Your task to perform on an android device: turn on notifications settings in the gmail app Image 0: 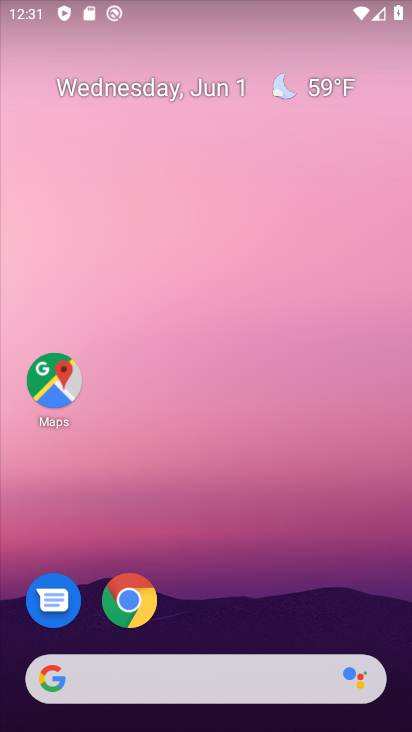
Step 0: drag from (195, 613) to (232, 85)
Your task to perform on an android device: turn on notifications settings in the gmail app Image 1: 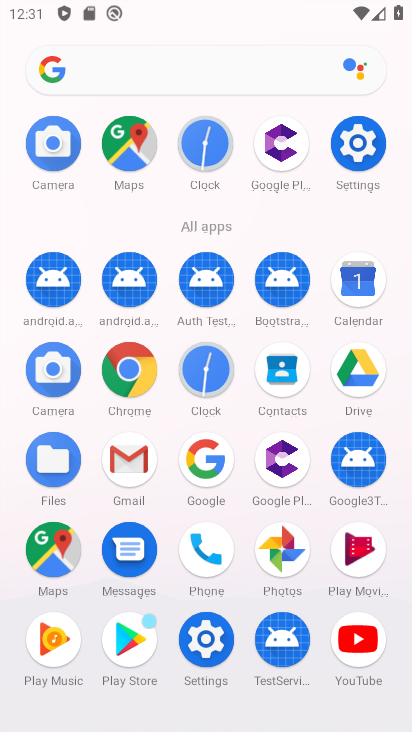
Step 1: click (128, 450)
Your task to perform on an android device: turn on notifications settings in the gmail app Image 2: 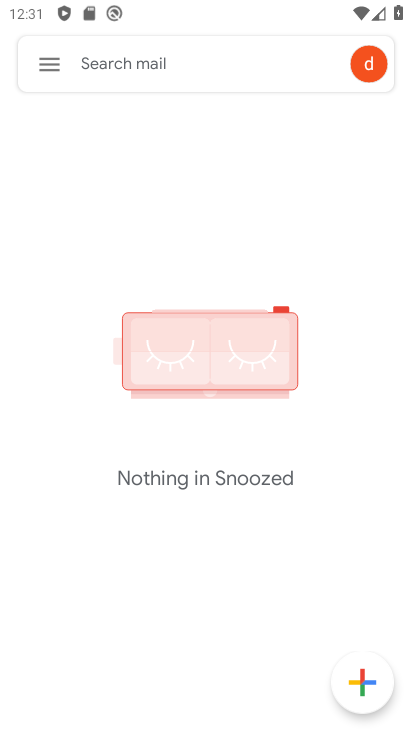
Step 2: click (55, 62)
Your task to perform on an android device: turn on notifications settings in the gmail app Image 3: 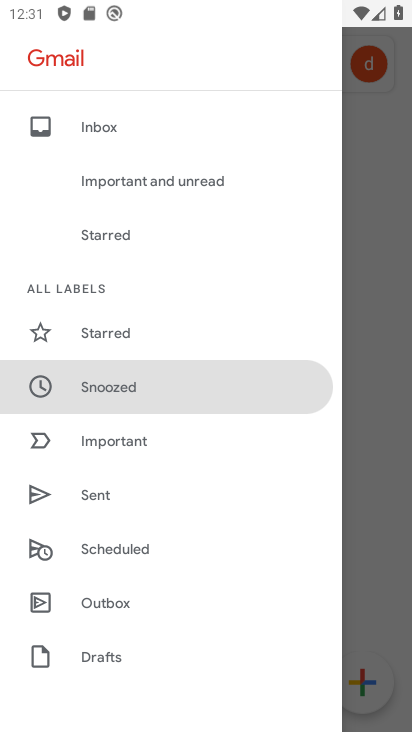
Step 3: drag from (109, 675) to (243, 170)
Your task to perform on an android device: turn on notifications settings in the gmail app Image 4: 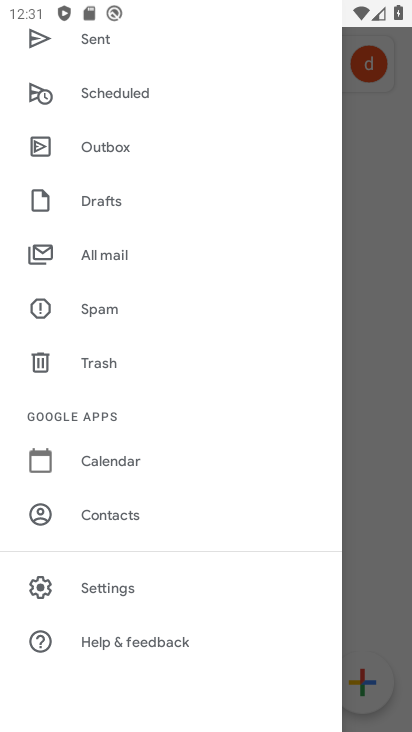
Step 4: click (138, 578)
Your task to perform on an android device: turn on notifications settings in the gmail app Image 5: 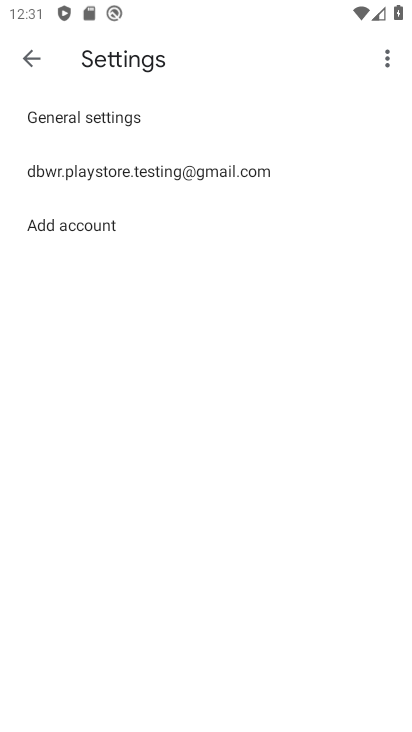
Step 5: click (277, 165)
Your task to perform on an android device: turn on notifications settings in the gmail app Image 6: 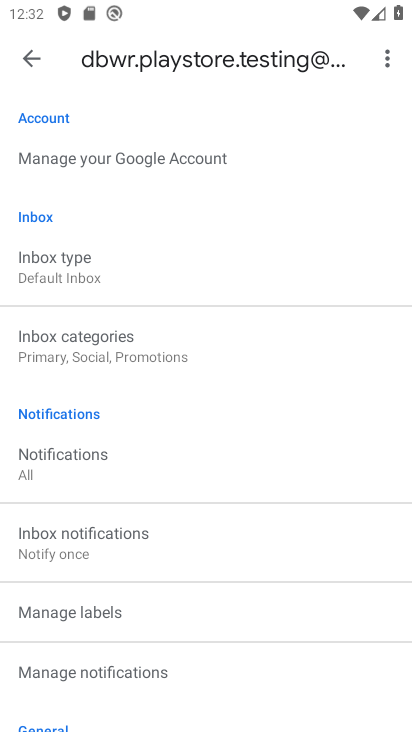
Step 6: click (117, 479)
Your task to perform on an android device: turn on notifications settings in the gmail app Image 7: 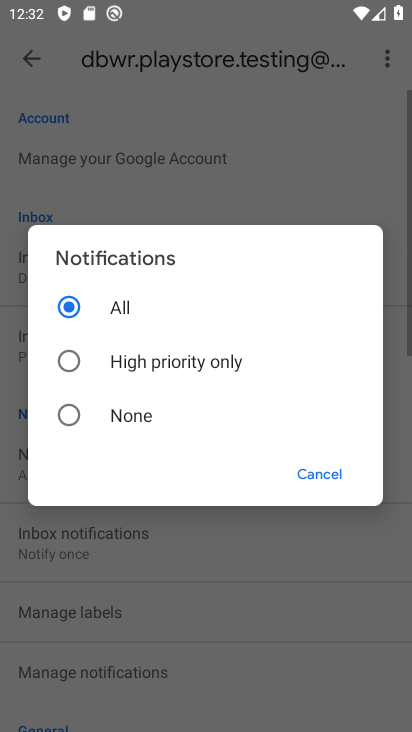
Step 7: click (117, 479)
Your task to perform on an android device: turn on notifications settings in the gmail app Image 8: 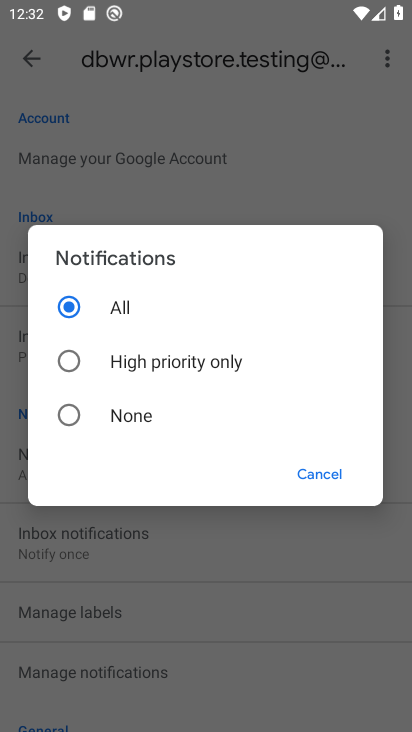
Step 8: task complete